Your task to perform on an android device: Go to internet settings Image 0: 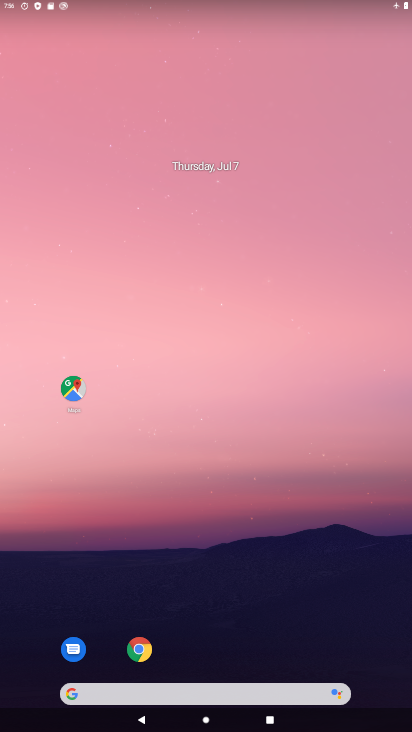
Step 0: press home button
Your task to perform on an android device: Go to internet settings Image 1: 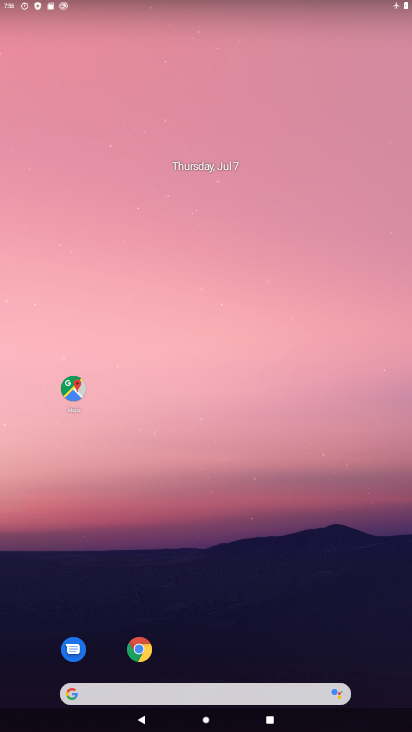
Step 1: drag from (256, 661) to (283, 16)
Your task to perform on an android device: Go to internet settings Image 2: 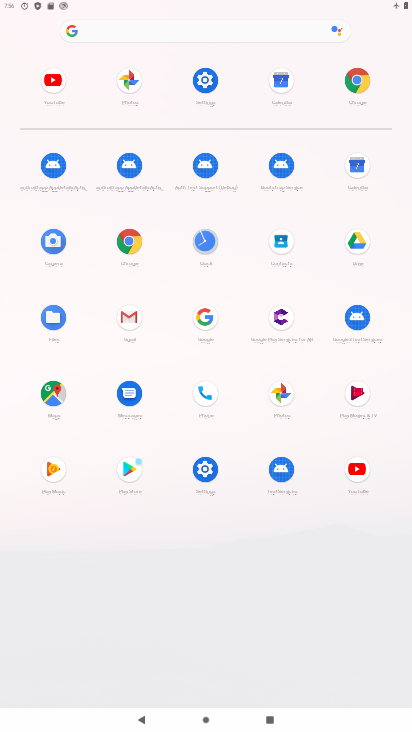
Step 2: click (205, 80)
Your task to perform on an android device: Go to internet settings Image 3: 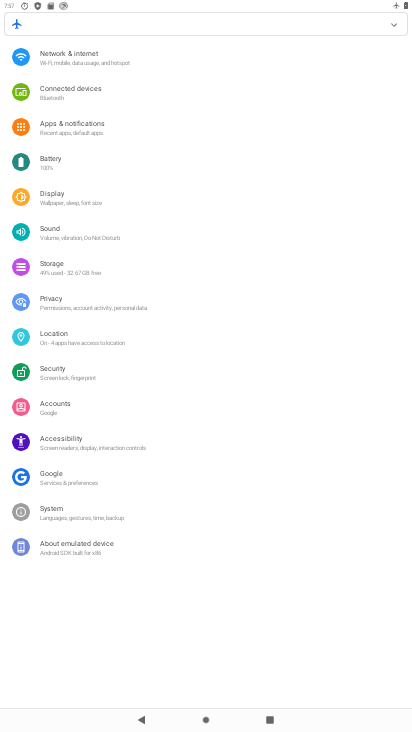
Step 3: click (91, 58)
Your task to perform on an android device: Go to internet settings Image 4: 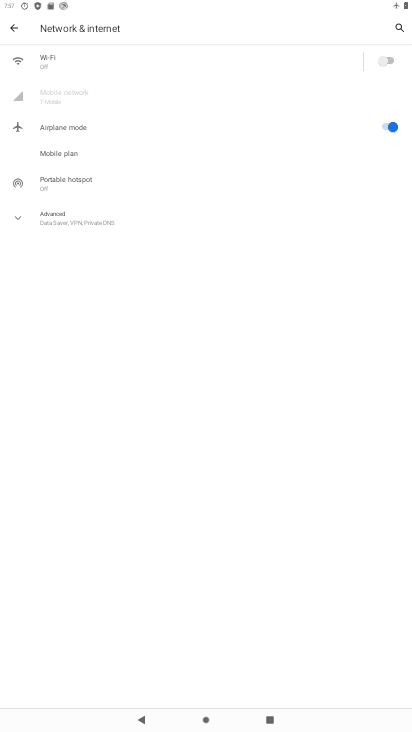
Step 4: click (15, 214)
Your task to perform on an android device: Go to internet settings Image 5: 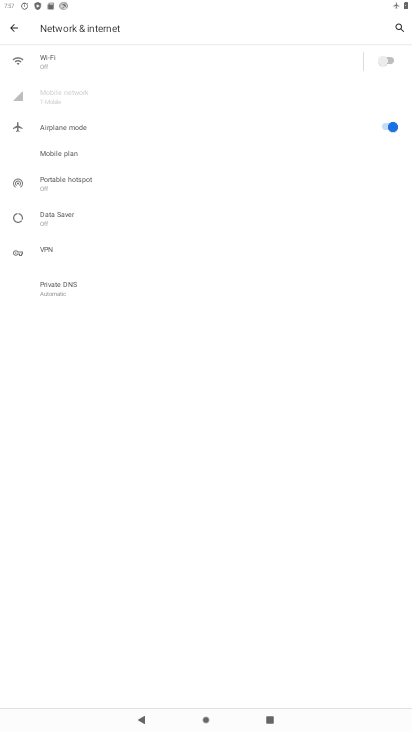
Step 5: task complete